Your task to perform on an android device: Go to internet settings Image 0: 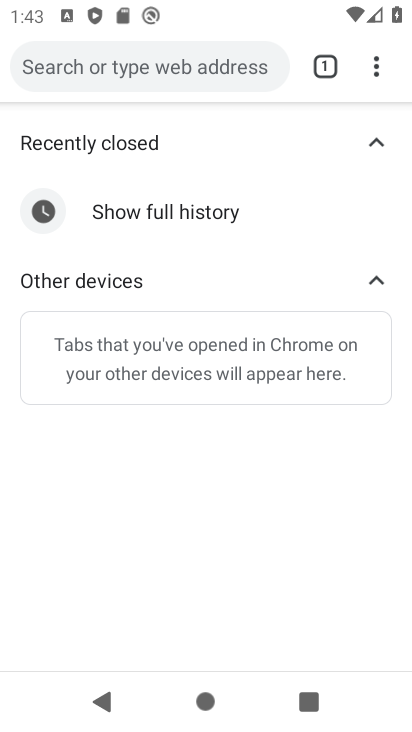
Step 0: press home button
Your task to perform on an android device: Go to internet settings Image 1: 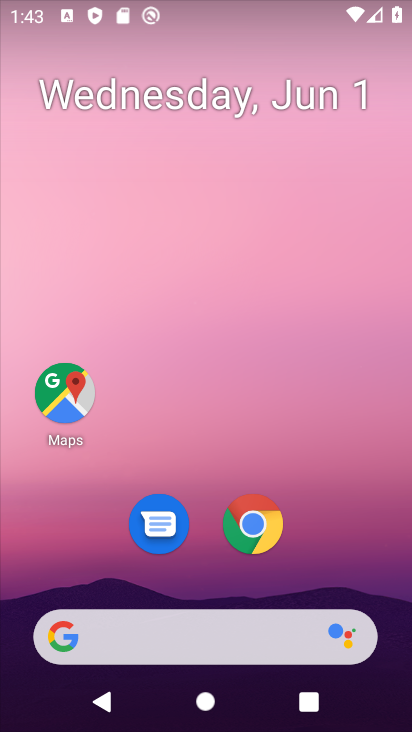
Step 1: drag from (281, 469) to (334, 27)
Your task to perform on an android device: Go to internet settings Image 2: 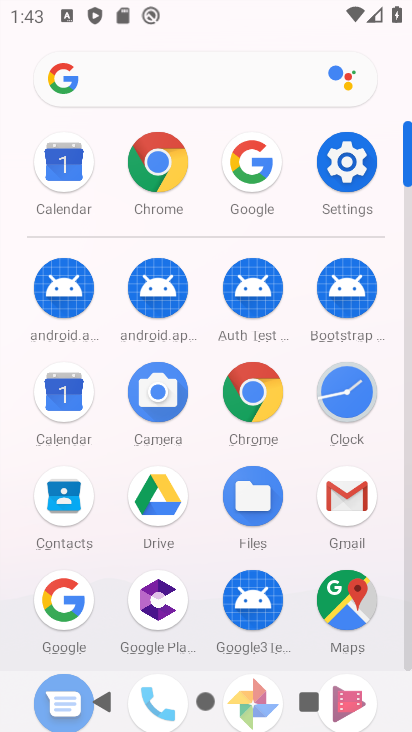
Step 2: click (344, 150)
Your task to perform on an android device: Go to internet settings Image 3: 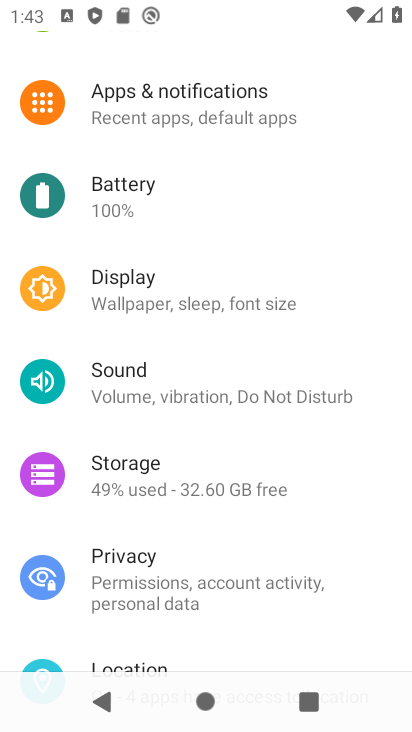
Step 3: drag from (236, 168) to (222, 610)
Your task to perform on an android device: Go to internet settings Image 4: 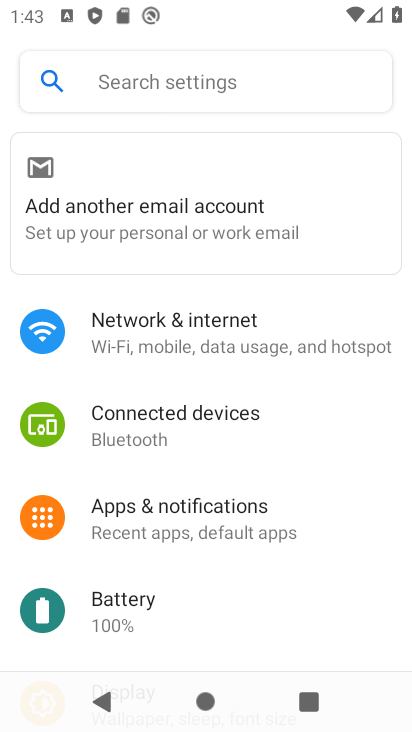
Step 4: click (272, 343)
Your task to perform on an android device: Go to internet settings Image 5: 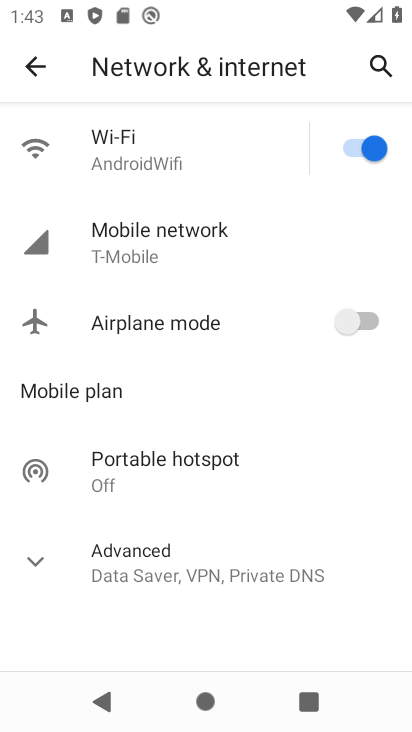
Step 5: task complete